Your task to perform on an android device: Go to eBay Image 0: 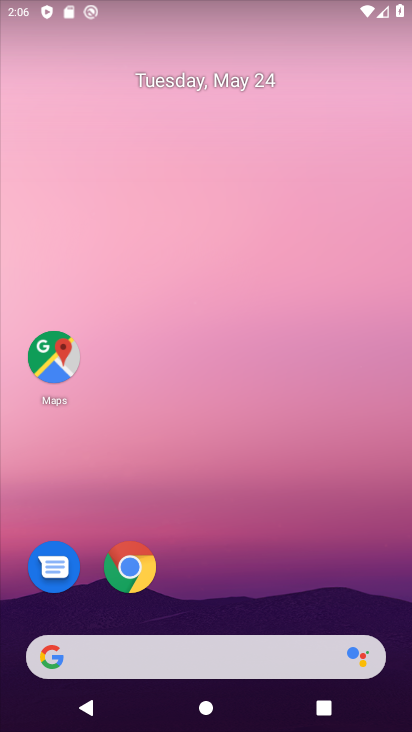
Step 0: click (113, 563)
Your task to perform on an android device: Go to eBay Image 1: 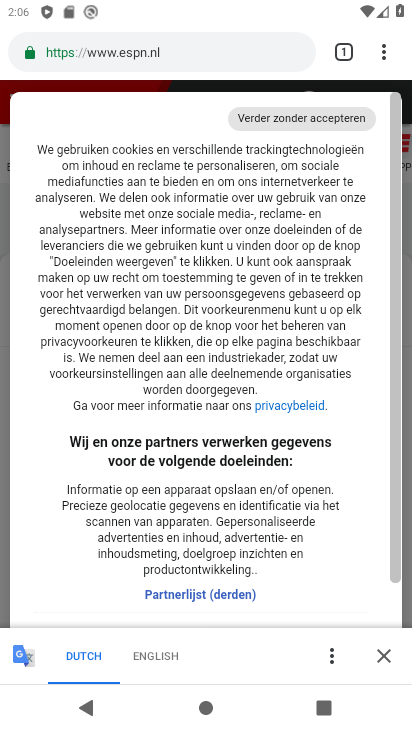
Step 1: click (348, 46)
Your task to perform on an android device: Go to eBay Image 2: 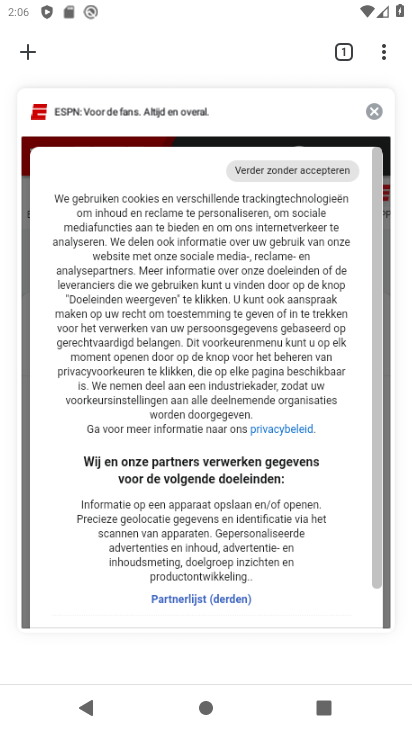
Step 2: click (21, 46)
Your task to perform on an android device: Go to eBay Image 3: 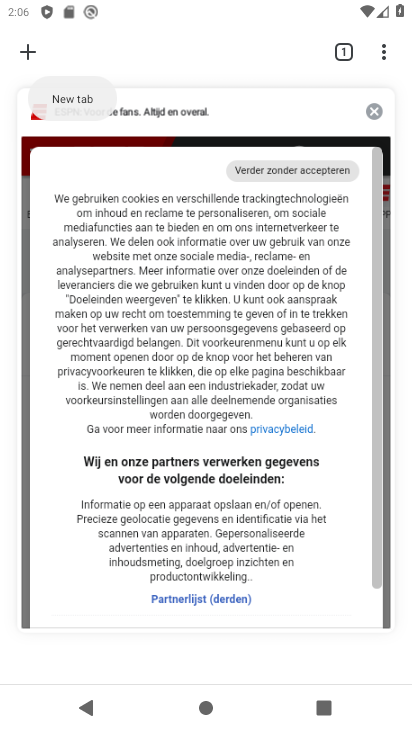
Step 3: click (33, 50)
Your task to perform on an android device: Go to eBay Image 4: 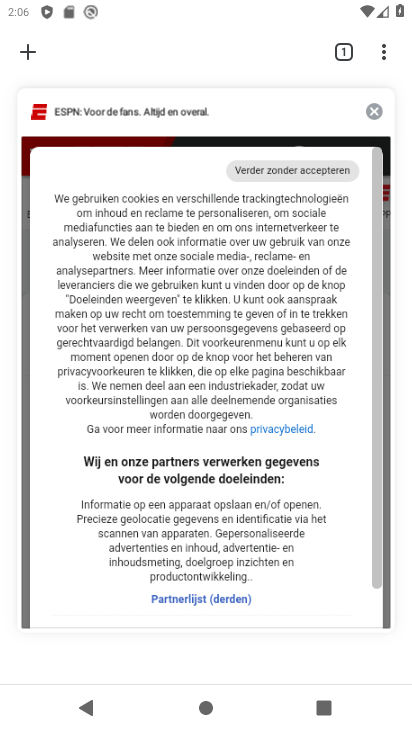
Step 4: click (36, 44)
Your task to perform on an android device: Go to eBay Image 5: 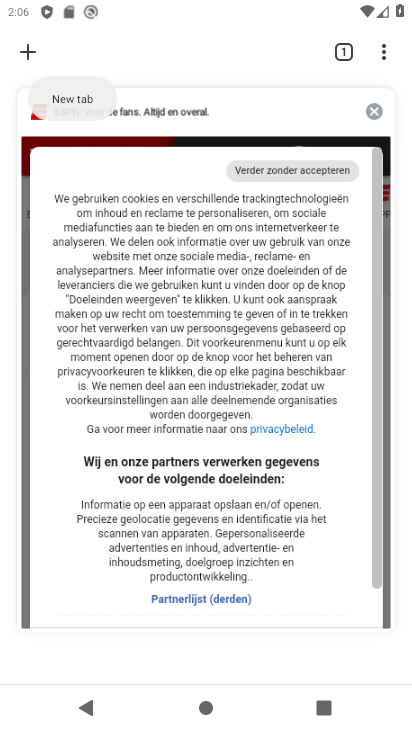
Step 5: click (216, 125)
Your task to perform on an android device: Go to eBay Image 6: 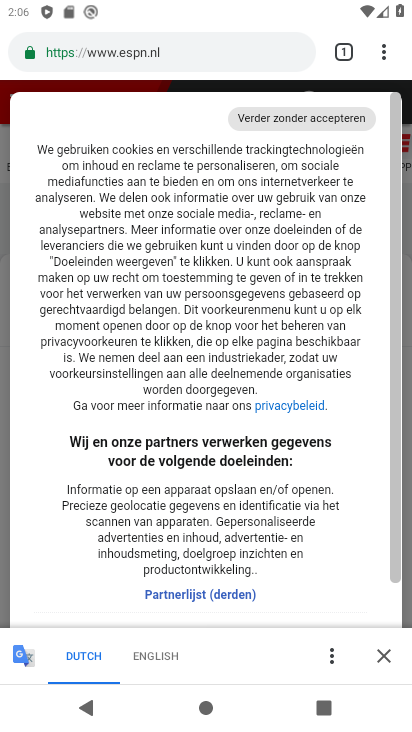
Step 6: click (344, 53)
Your task to perform on an android device: Go to eBay Image 7: 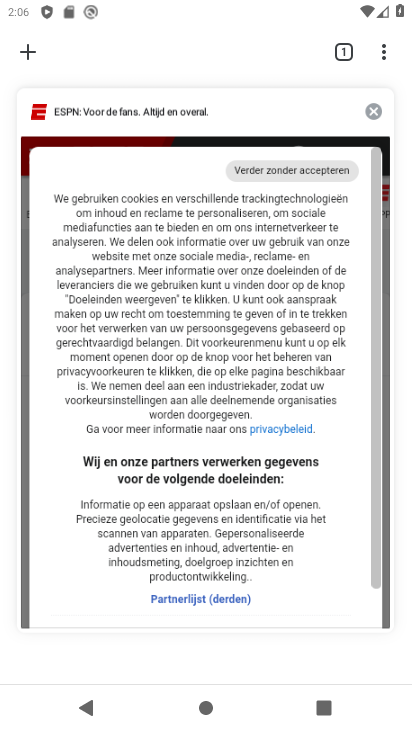
Step 7: click (21, 48)
Your task to perform on an android device: Go to eBay Image 8: 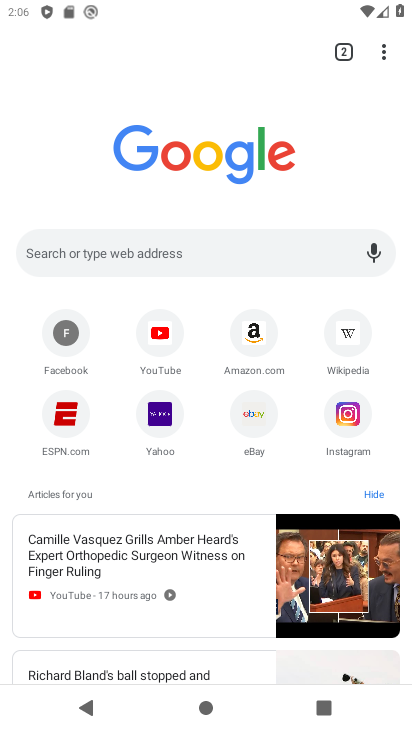
Step 8: click (251, 410)
Your task to perform on an android device: Go to eBay Image 9: 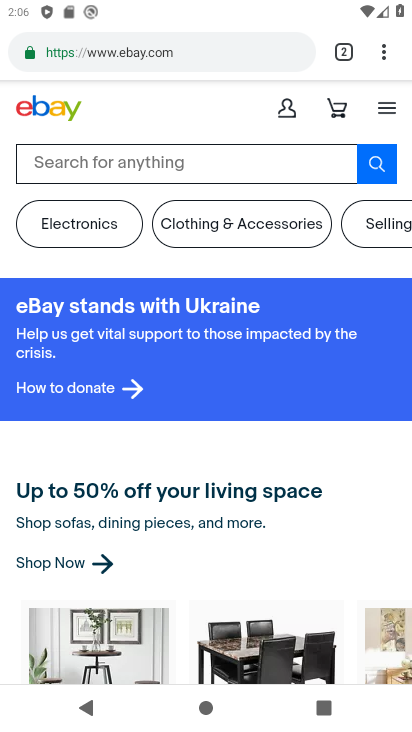
Step 9: task complete